Your task to perform on an android device: Open location settings Image 0: 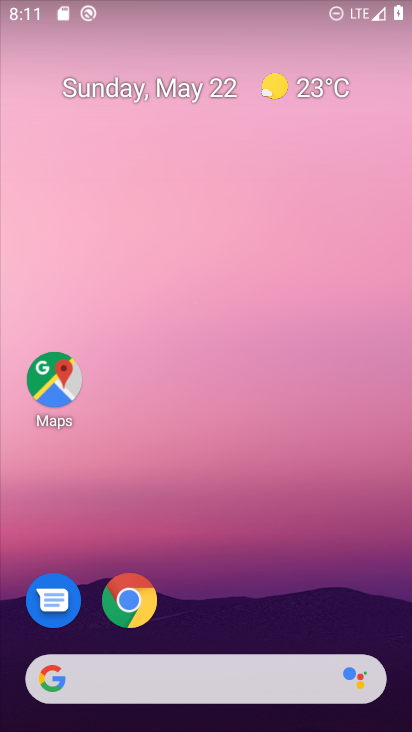
Step 0: drag from (376, 618) to (251, 96)
Your task to perform on an android device: Open location settings Image 1: 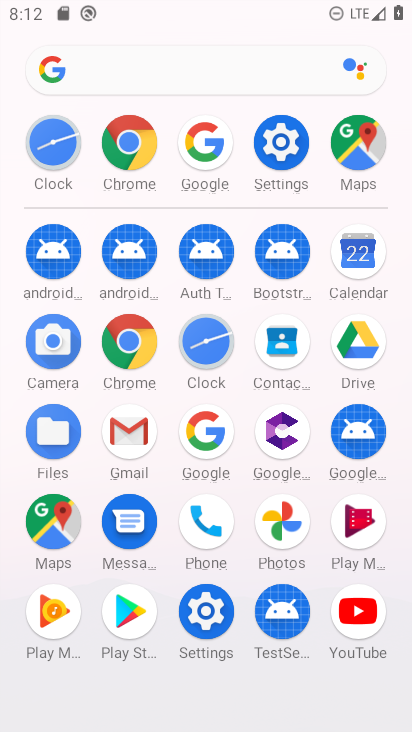
Step 1: click (219, 617)
Your task to perform on an android device: Open location settings Image 2: 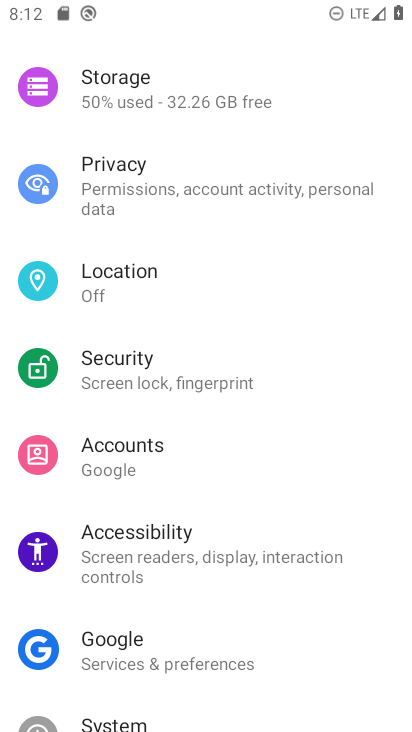
Step 2: click (173, 284)
Your task to perform on an android device: Open location settings Image 3: 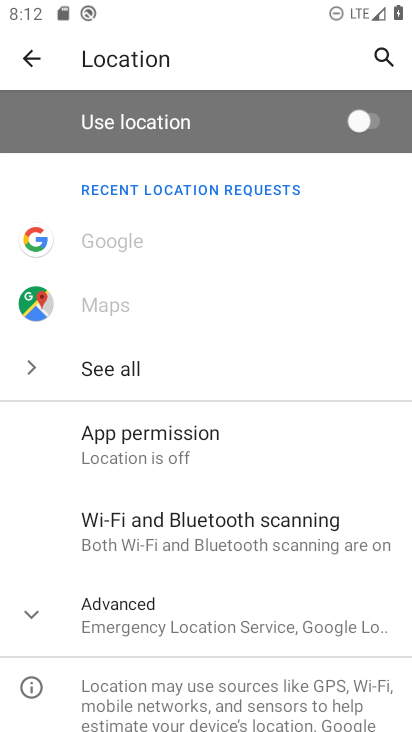
Step 3: task complete